Your task to perform on an android device: What's on my calendar tomorrow? Image 0: 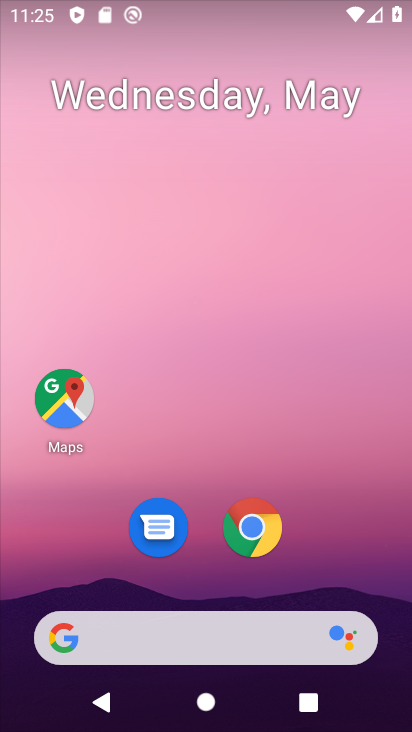
Step 0: drag from (399, 700) to (189, 121)
Your task to perform on an android device: What's on my calendar tomorrow? Image 1: 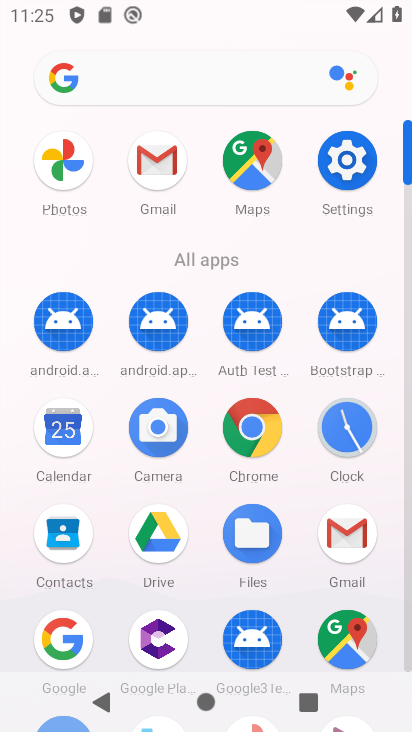
Step 1: click (79, 427)
Your task to perform on an android device: What's on my calendar tomorrow? Image 2: 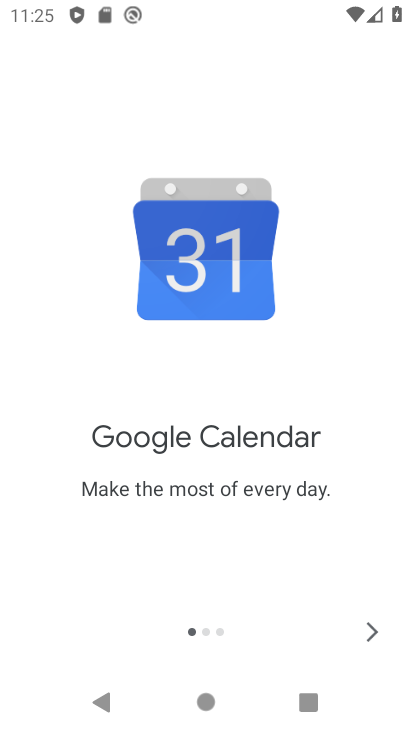
Step 2: click (375, 627)
Your task to perform on an android device: What's on my calendar tomorrow? Image 3: 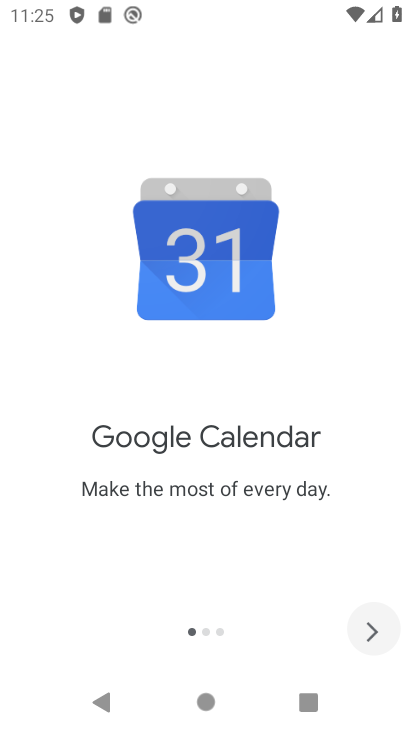
Step 3: click (375, 627)
Your task to perform on an android device: What's on my calendar tomorrow? Image 4: 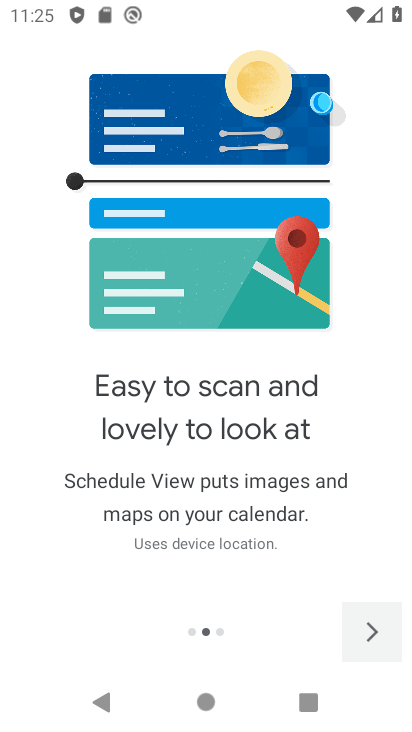
Step 4: click (374, 627)
Your task to perform on an android device: What's on my calendar tomorrow? Image 5: 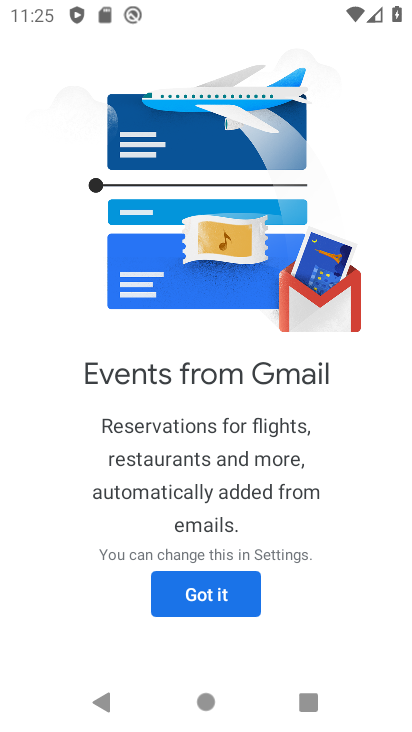
Step 5: click (202, 599)
Your task to perform on an android device: What's on my calendar tomorrow? Image 6: 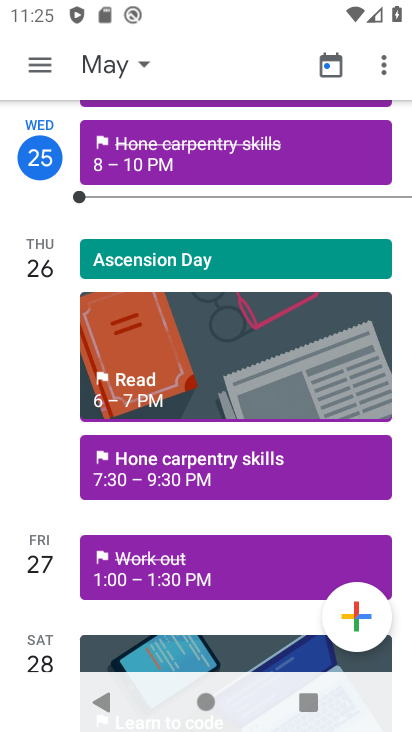
Step 6: click (136, 75)
Your task to perform on an android device: What's on my calendar tomorrow? Image 7: 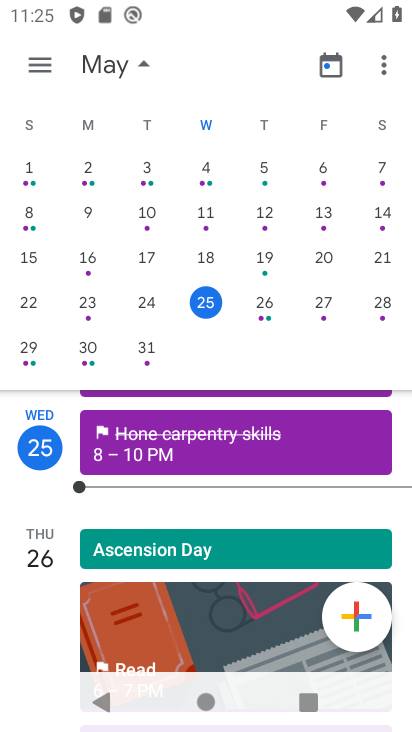
Step 7: click (316, 306)
Your task to perform on an android device: What's on my calendar tomorrow? Image 8: 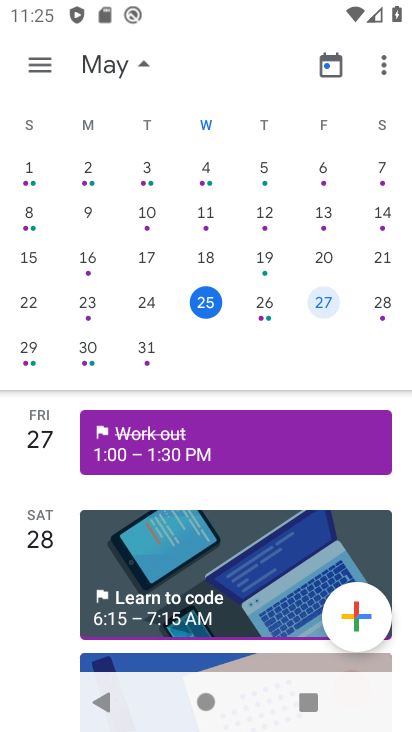
Step 8: click (113, 66)
Your task to perform on an android device: What's on my calendar tomorrow? Image 9: 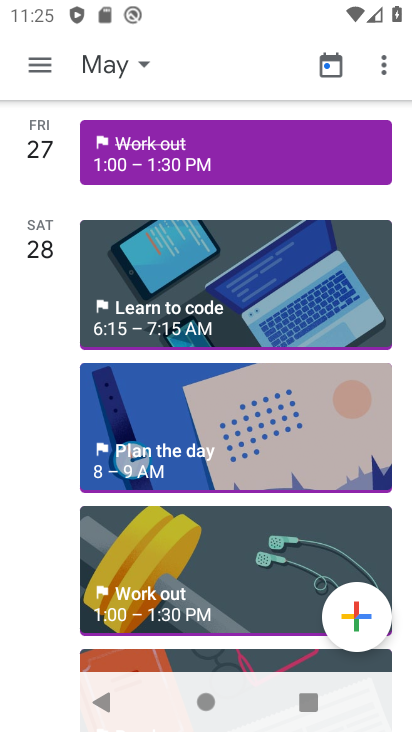
Step 9: task complete